Your task to perform on an android device: toggle pop-ups in chrome Image 0: 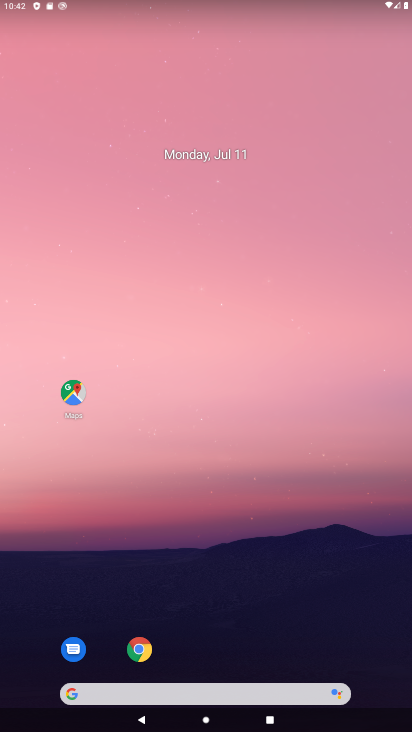
Step 0: click (140, 650)
Your task to perform on an android device: toggle pop-ups in chrome Image 1: 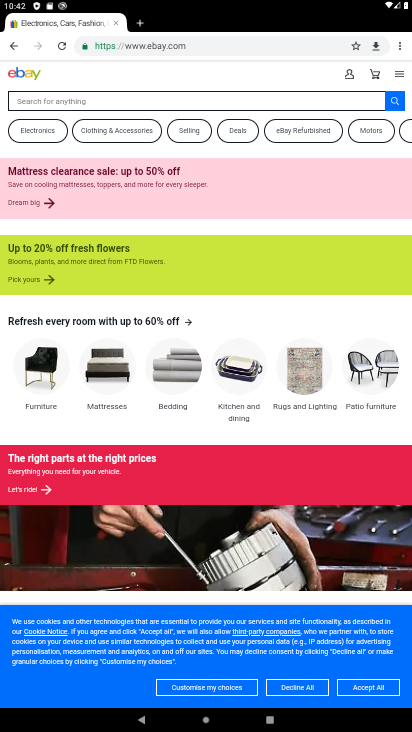
Step 1: click (399, 47)
Your task to perform on an android device: toggle pop-ups in chrome Image 2: 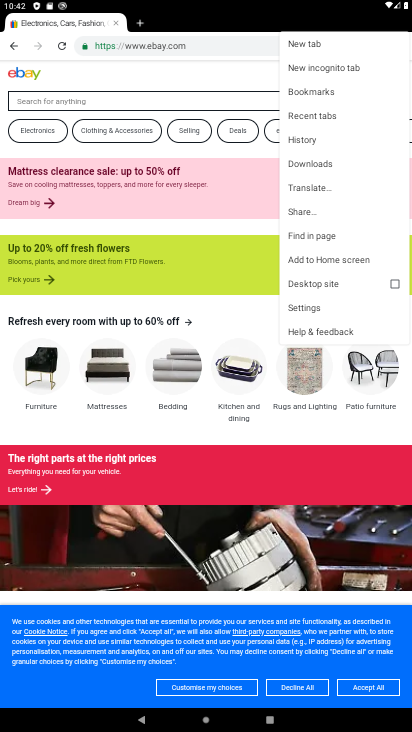
Step 2: click (311, 307)
Your task to perform on an android device: toggle pop-ups in chrome Image 3: 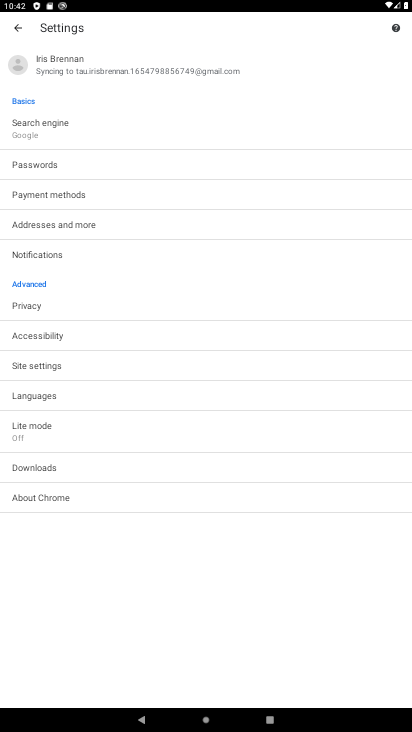
Step 3: click (47, 365)
Your task to perform on an android device: toggle pop-ups in chrome Image 4: 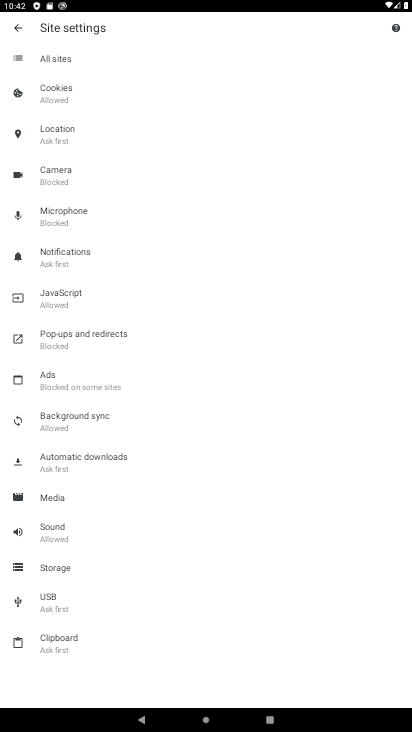
Step 4: click (91, 338)
Your task to perform on an android device: toggle pop-ups in chrome Image 5: 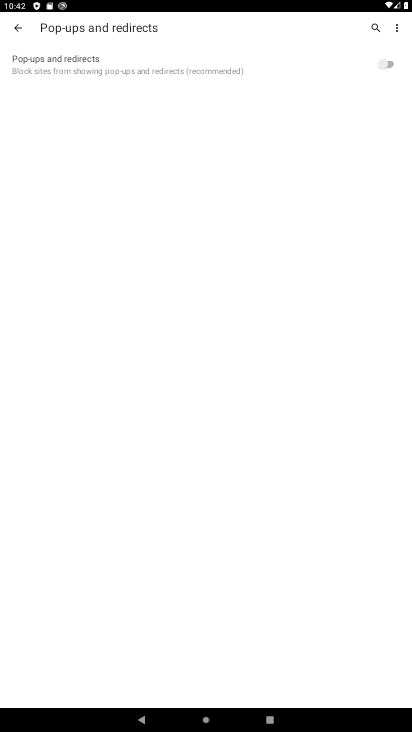
Step 5: click (385, 64)
Your task to perform on an android device: toggle pop-ups in chrome Image 6: 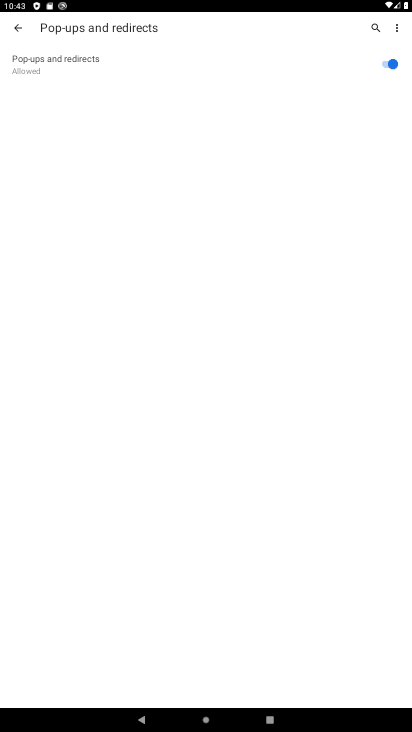
Step 6: task complete